Your task to perform on an android device: Open ESPN.com Image 0: 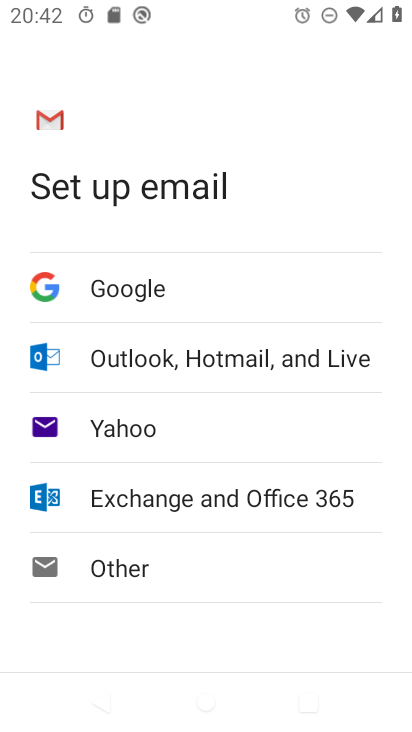
Step 0: press home button
Your task to perform on an android device: Open ESPN.com Image 1: 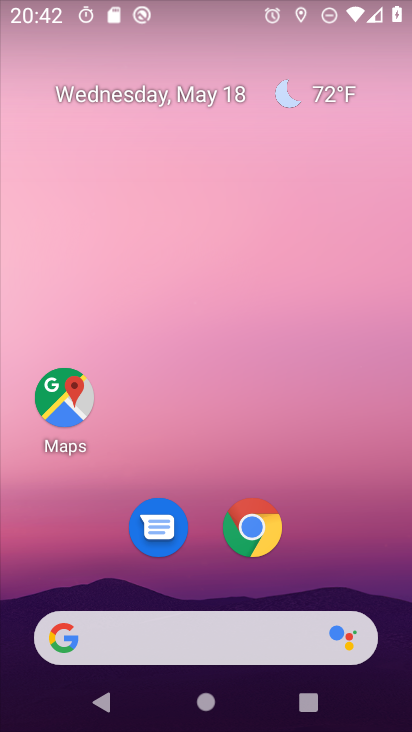
Step 1: click (255, 518)
Your task to perform on an android device: Open ESPN.com Image 2: 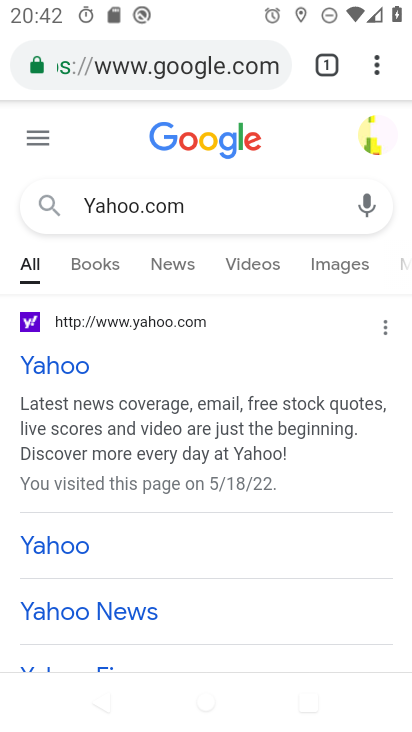
Step 2: click (278, 63)
Your task to perform on an android device: Open ESPN.com Image 3: 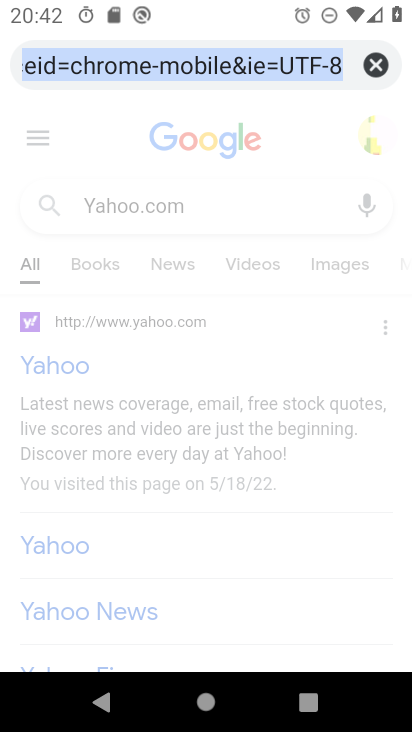
Step 3: click (379, 62)
Your task to perform on an android device: Open ESPN.com Image 4: 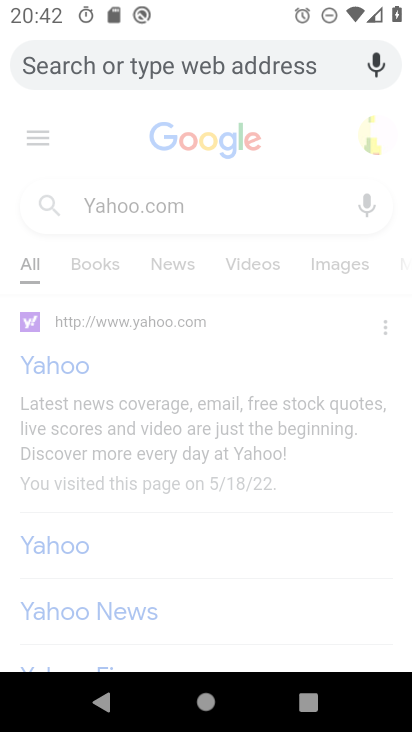
Step 4: type "ESPN.com"
Your task to perform on an android device: Open ESPN.com Image 5: 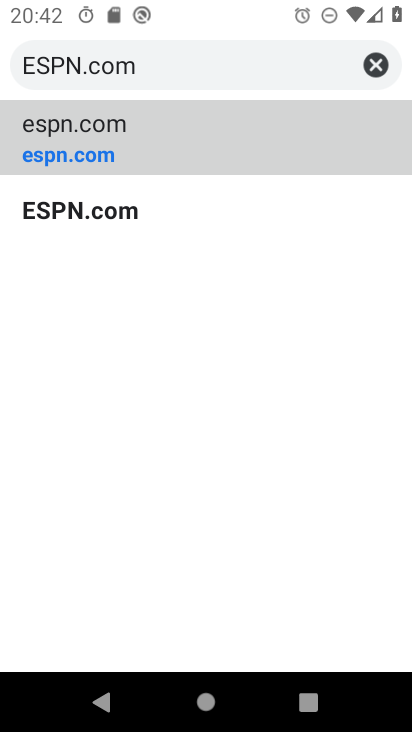
Step 5: click (82, 204)
Your task to perform on an android device: Open ESPN.com Image 6: 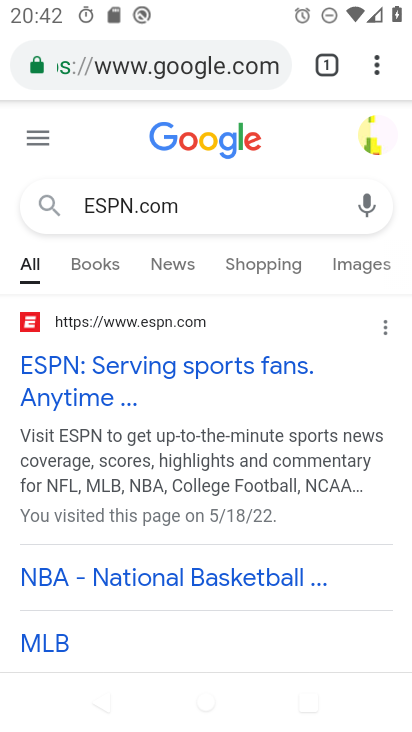
Step 6: task complete